Your task to perform on an android device: turn on the 12-hour format for clock Image 0: 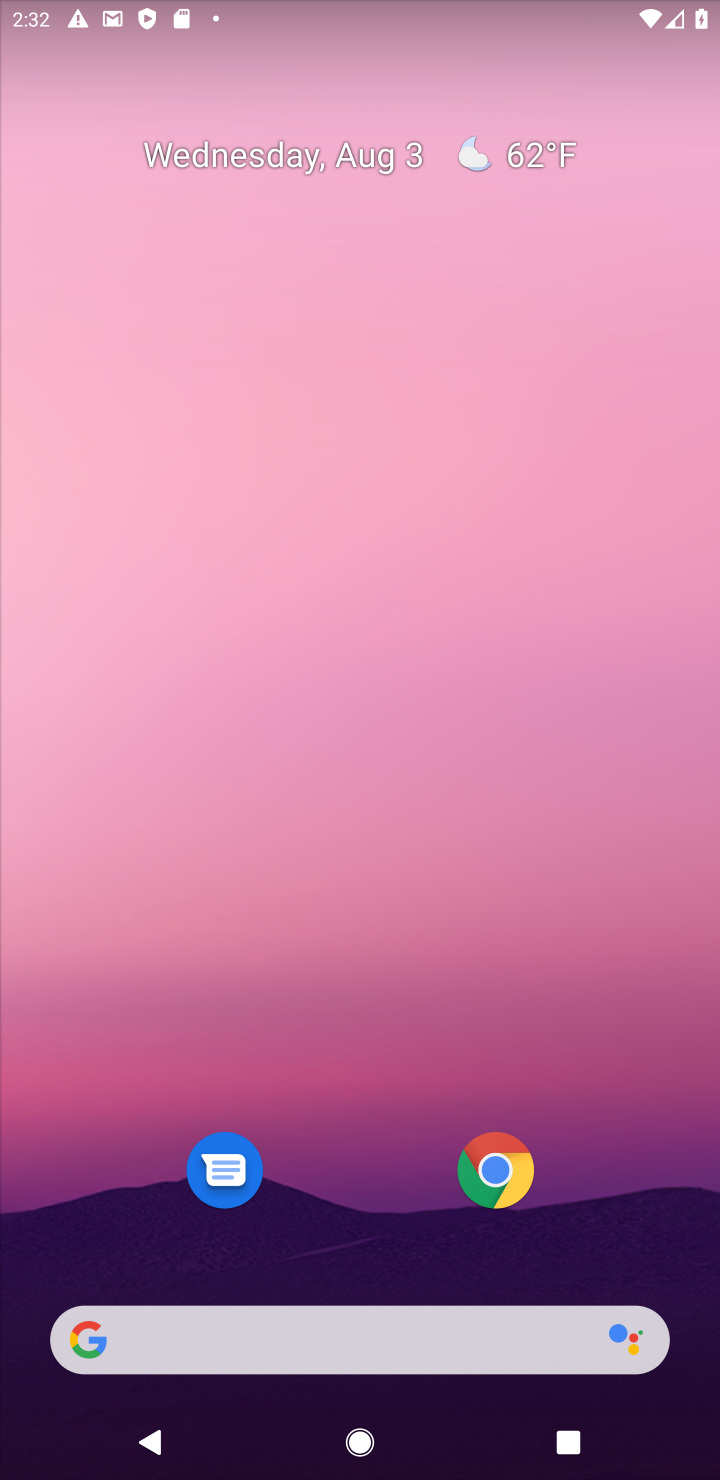
Step 0: drag from (399, 1087) to (400, 29)
Your task to perform on an android device: turn on the 12-hour format for clock Image 1: 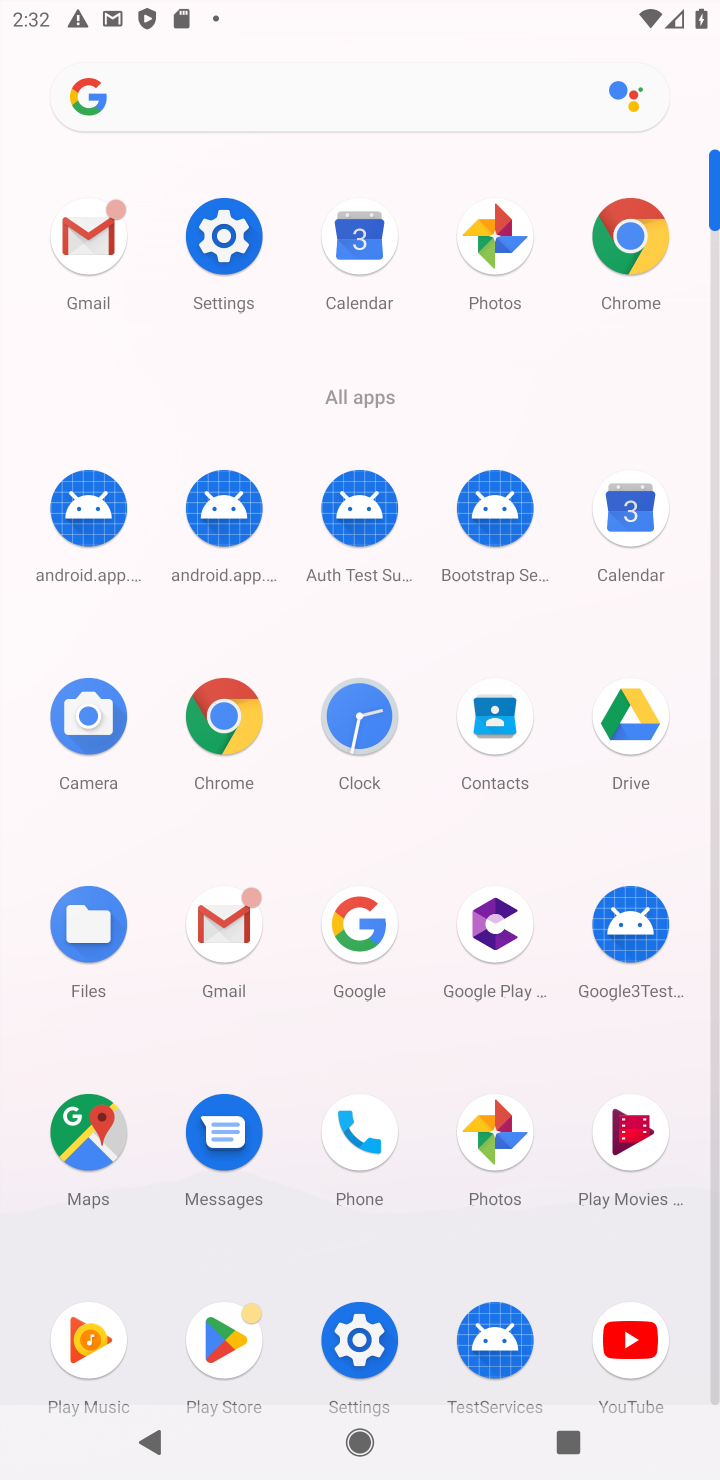
Step 1: click (353, 723)
Your task to perform on an android device: turn on the 12-hour format for clock Image 2: 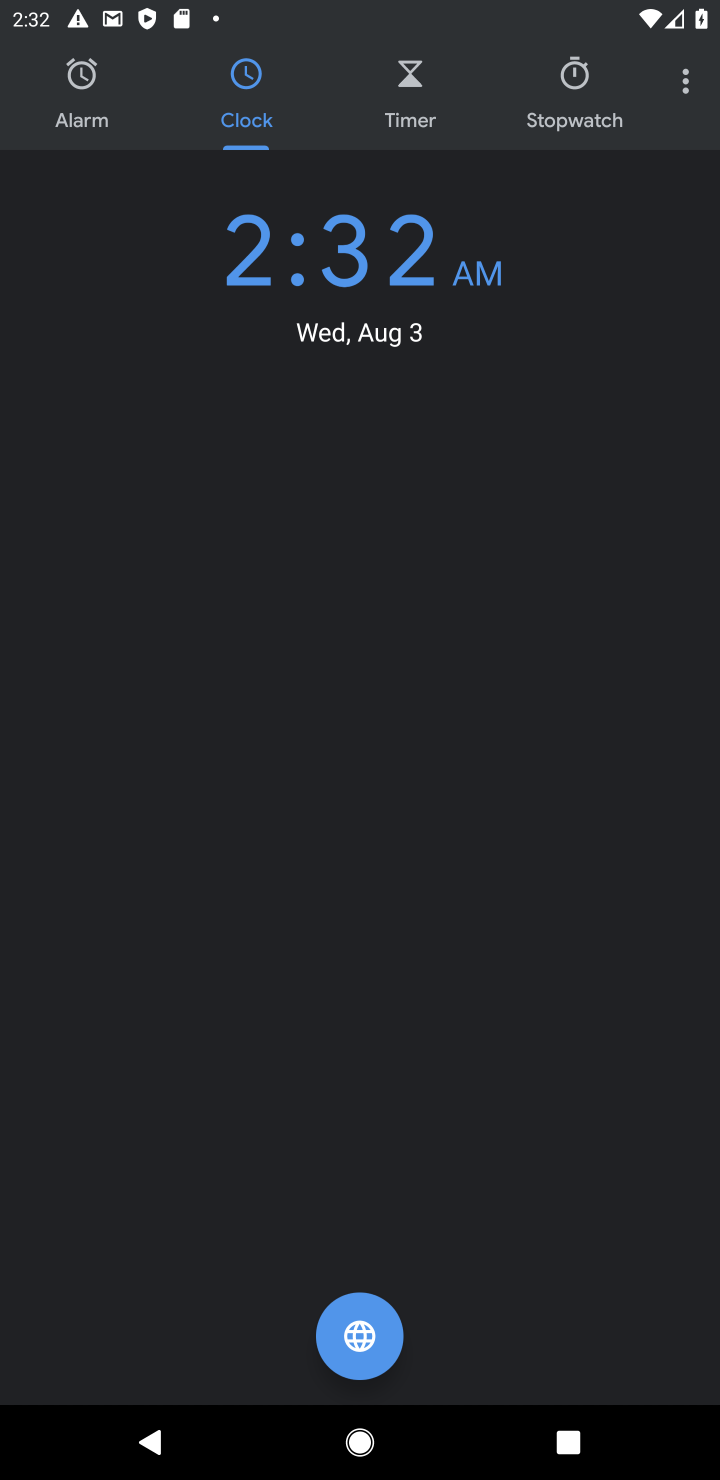
Step 2: click (695, 88)
Your task to perform on an android device: turn on the 12-hour format for clock Image 3: 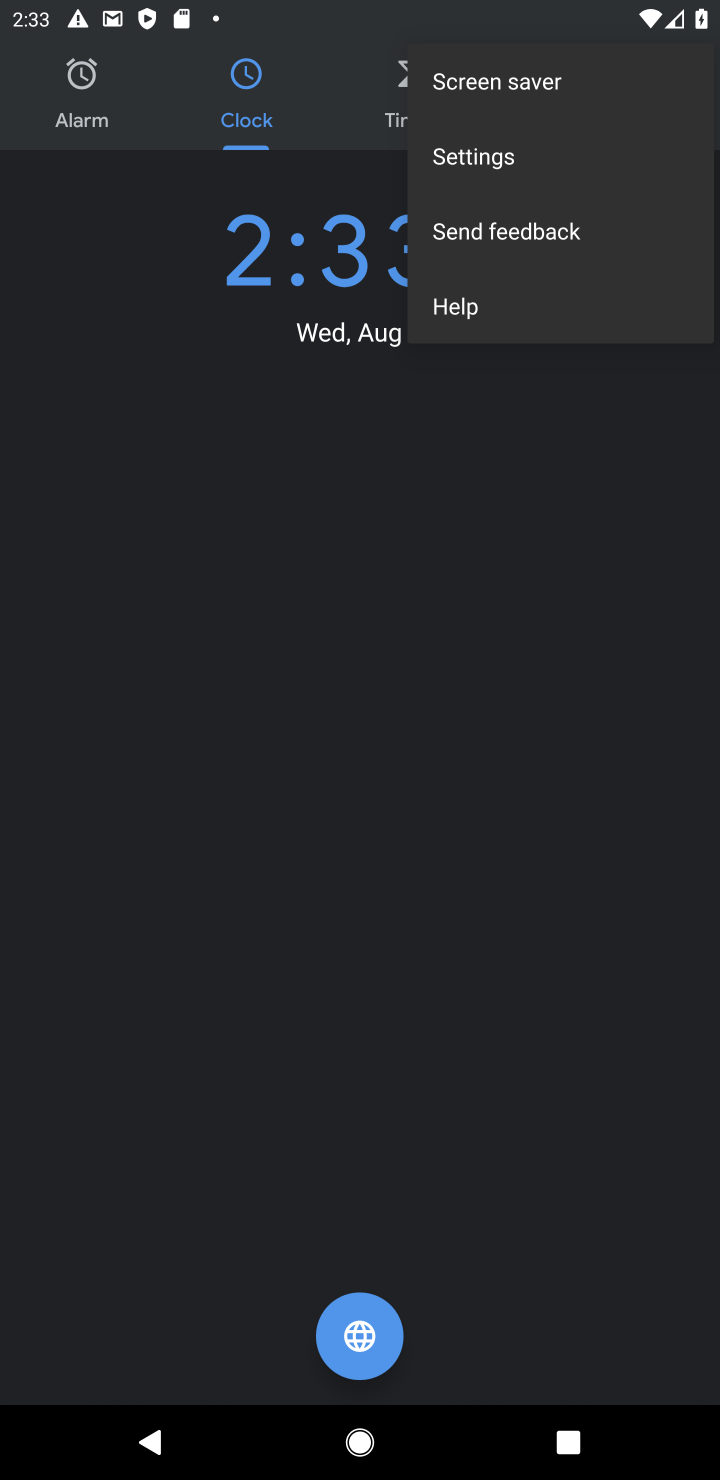
Step 3: click (510, 162)
Your task to perform on an android device: turn on the 12-hour format for clock Image 4: 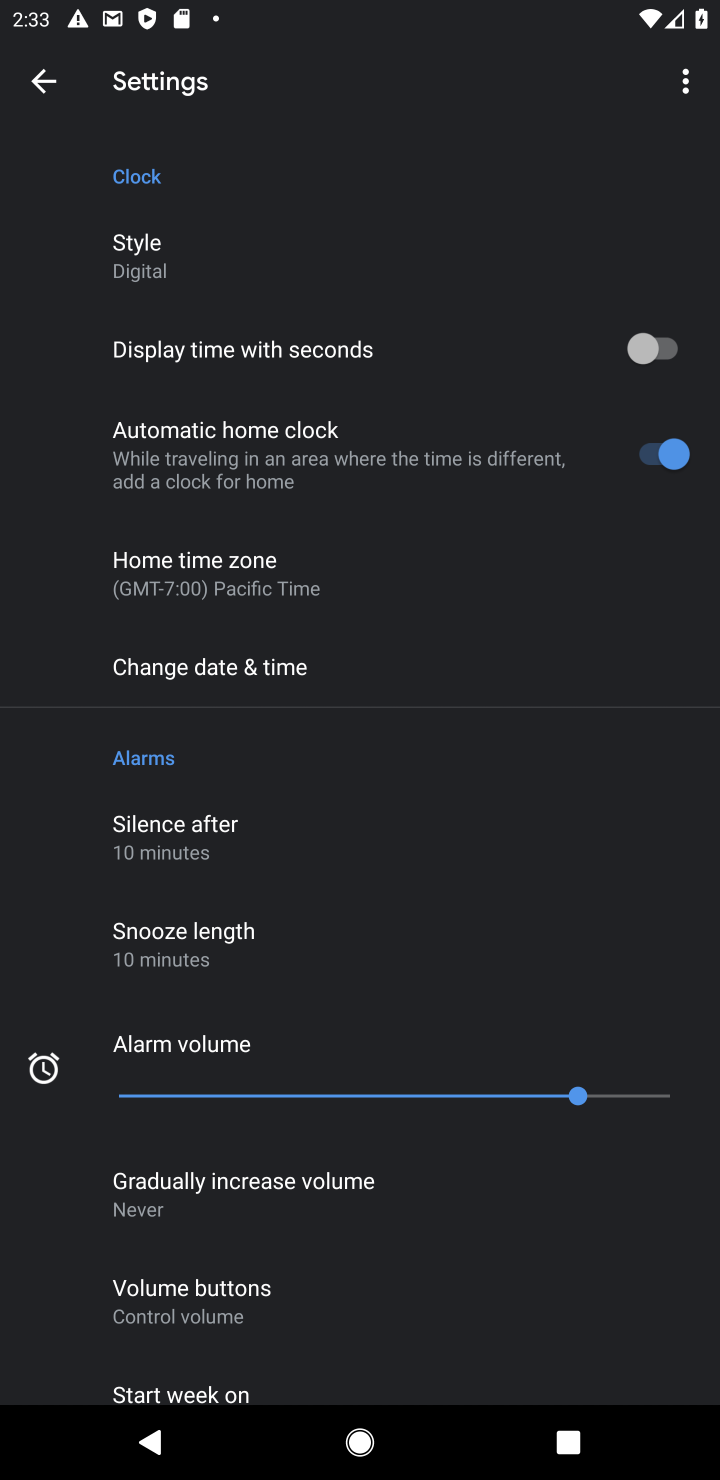
Step 4: click (261, 677)
Your task to perform on an android device: turn on the 12-hour format for clock Image 5: 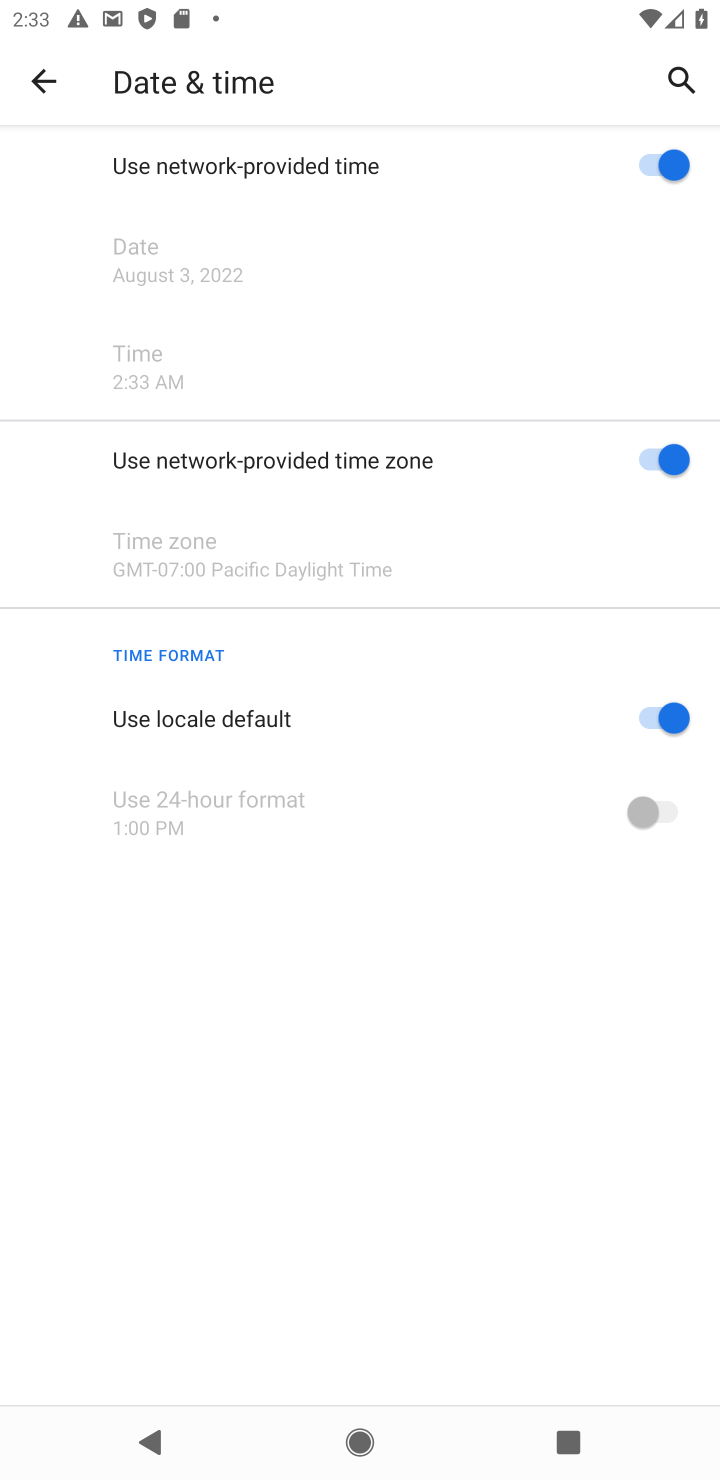
Step 5: task complete